Your task to perform on an android device: all mails in gmail Image 0: 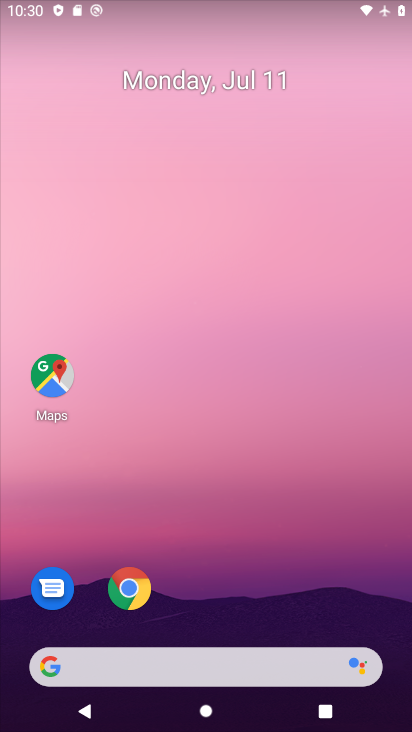
Step 0: press home button
Your task to perform on an android device: all mails in gmail Image 1: 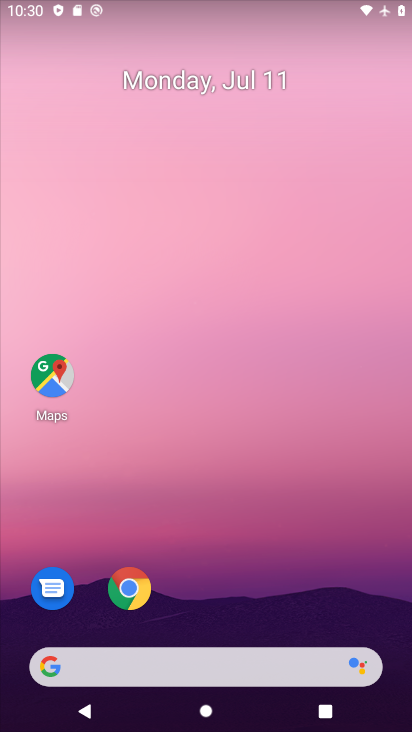
Step 1: drag from (195, 616) to (328, 201)
Your task to perform on an android device: all mails in gmail Image 2: 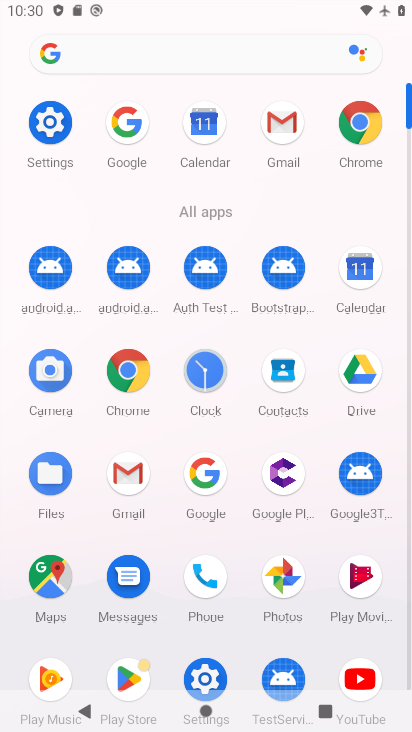
Step 2: click (285, 122)
Your task to perform on an android device: all mails in gmail Image 3: 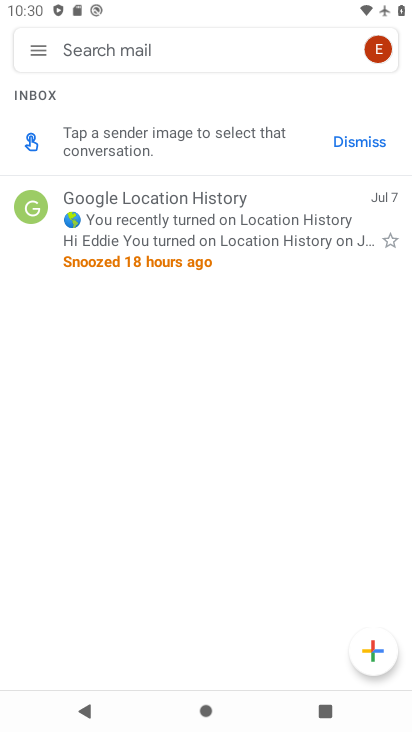
Step 3: click (51, 42)
Your task to perform on an android device: all mails in gmail Image 4: 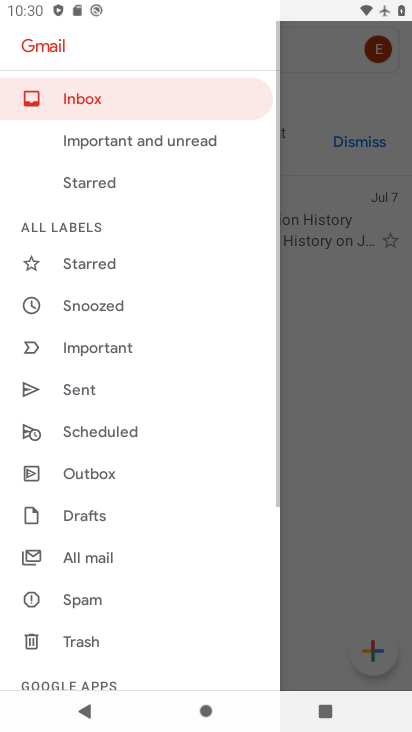
Step 4: click (99, 555)
Your task to perform on an android device: all mails in gmail Image 5: 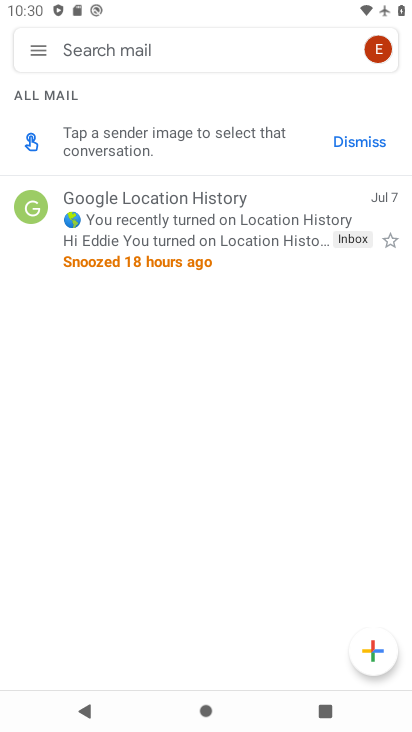
Step 5: task complete